Your task to perform on an android device: Open calendar and show me the first week of next month Image 0: 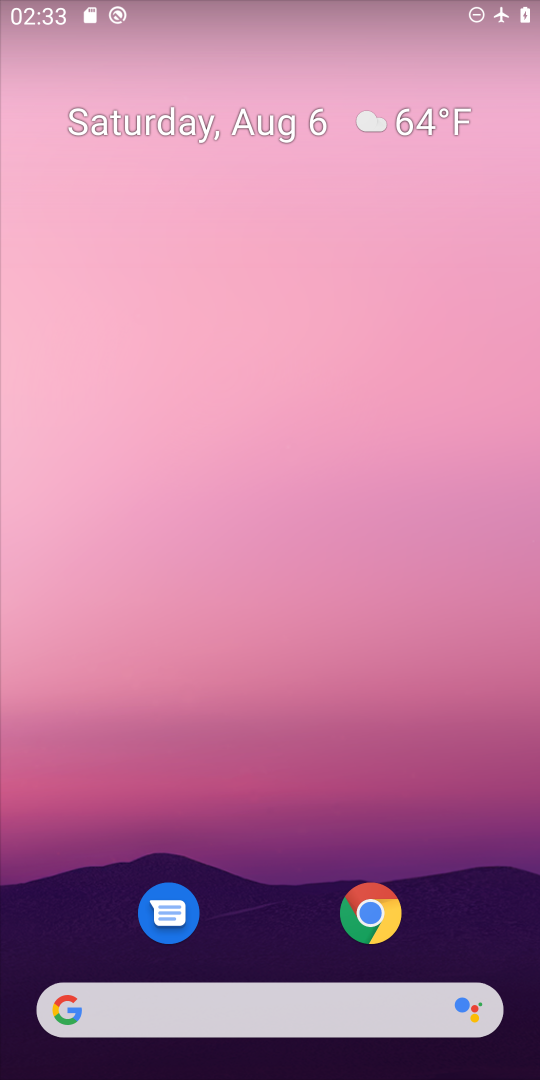
Step 0: press home button
Your task to perform on an android device: Open calendar and show me the first week of next month Image 1: 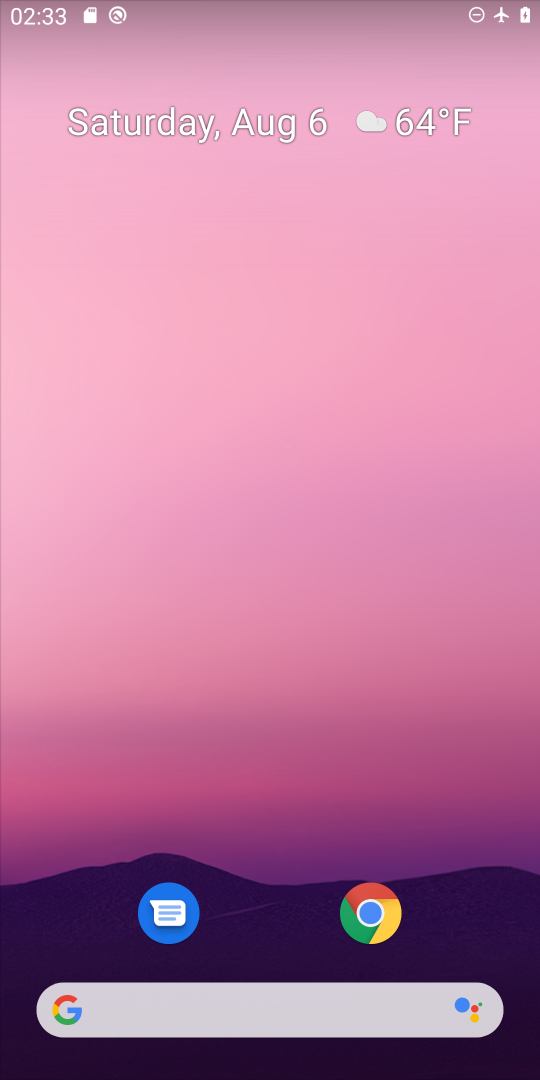
Step 1: drag from (434, 937) to (444, 239)
Your task to perform on an android device: Open calendar and show me the first week of next month Image 2: 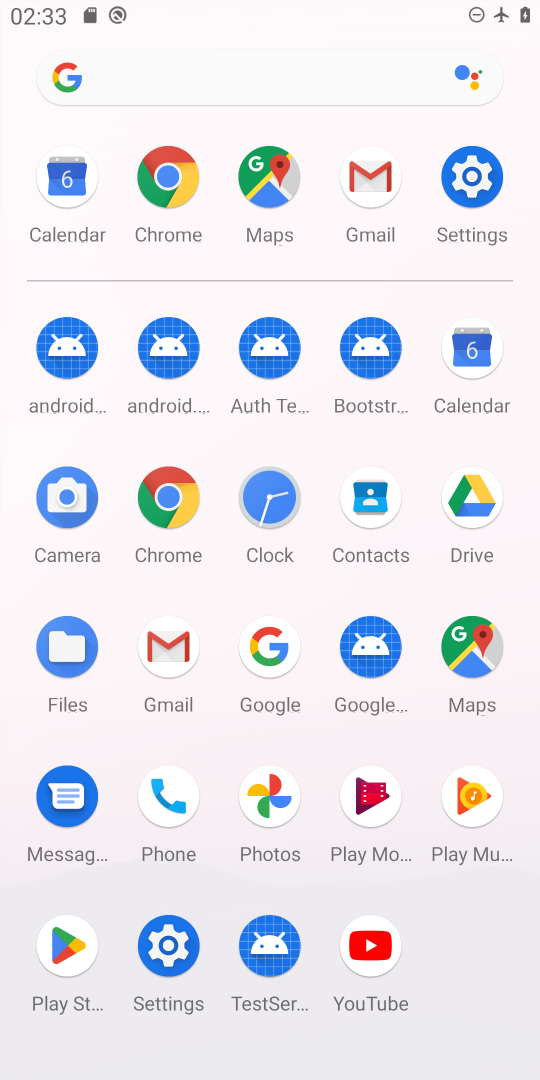
Step 2: click (467, 364)
Your task to perform on an android device: Open calendar and show me the first week of next month Image 3: 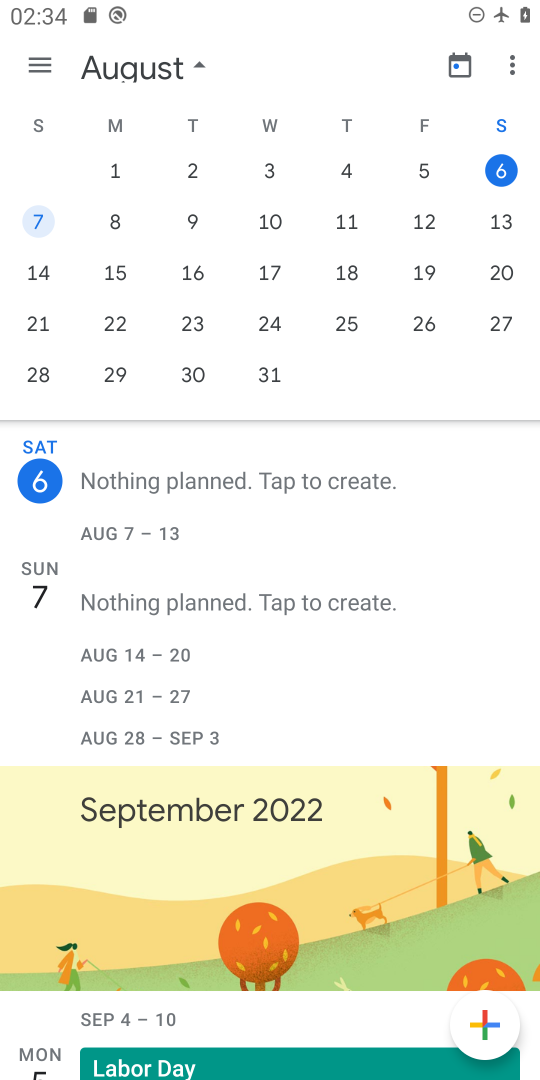
Step 3: task complete